Your task to perform on an android device: turn off improve location accuracy Image 0: 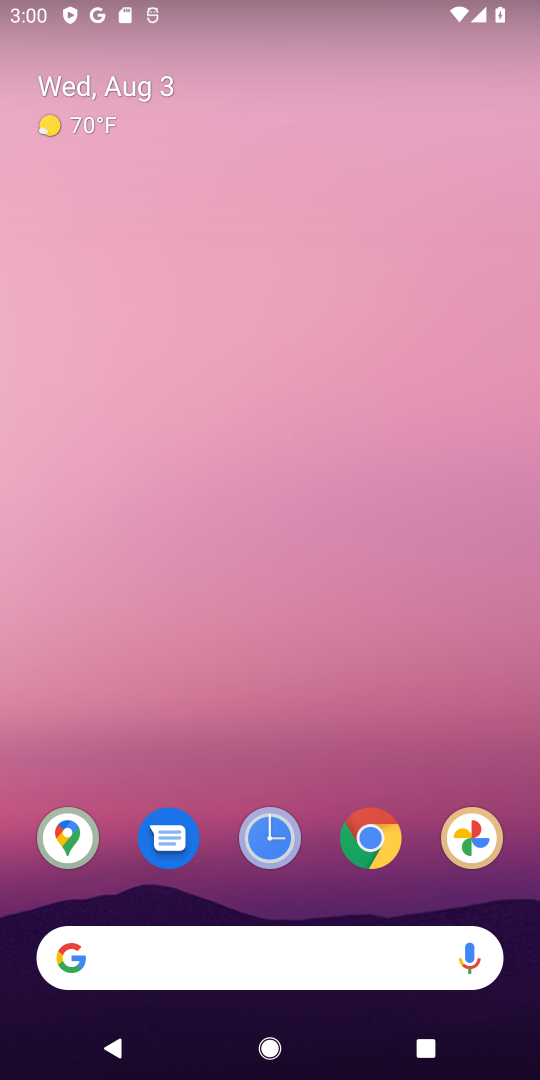
Step 0: drag from (363, 698) to (316, 118)
Your task to perform on an android device: turn off improve location accuracy Image 1: 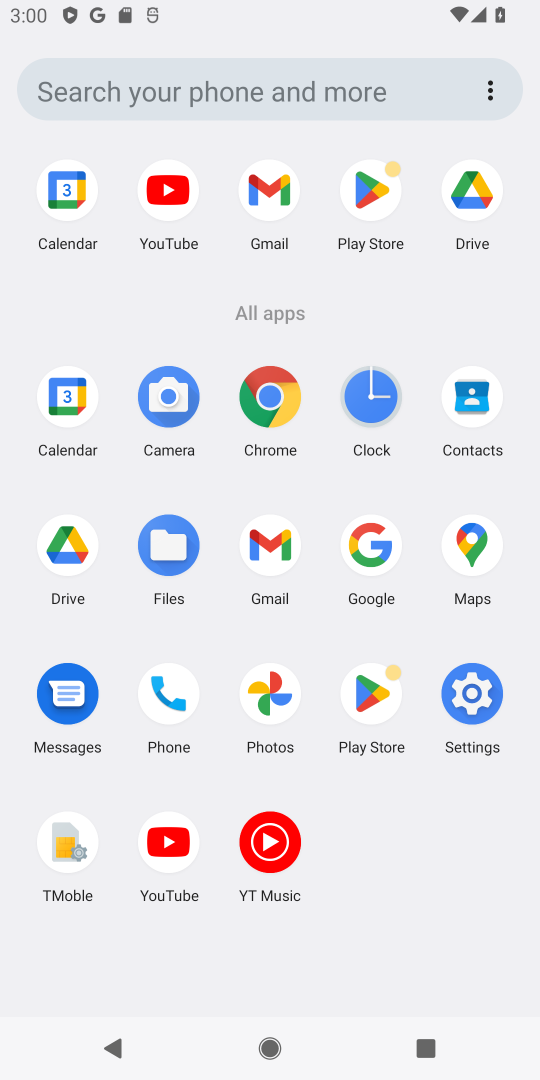
Step 1: click (474, 683)
Your task to perform on an android device: turn off improve location accuracy Image 2: 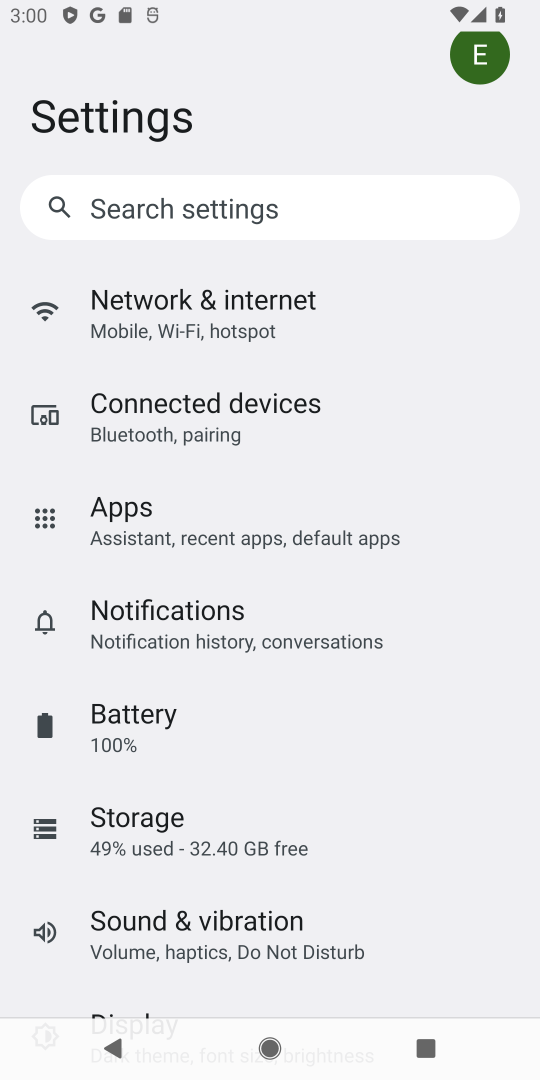
Step 2: drag from (263, 868) to (239, 592)
Your task to perform on an android device: turn off improve location accuracy Image 3: 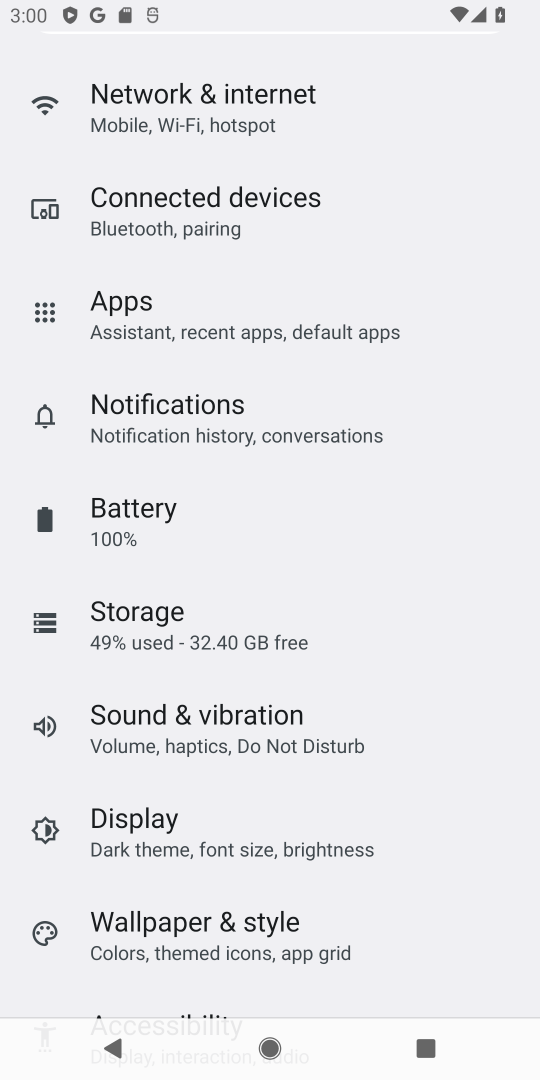
Step 3: drag from (233, 893) to (362, 271)
Your task to perform on an android device: turn off improve location accuracy Image 4: 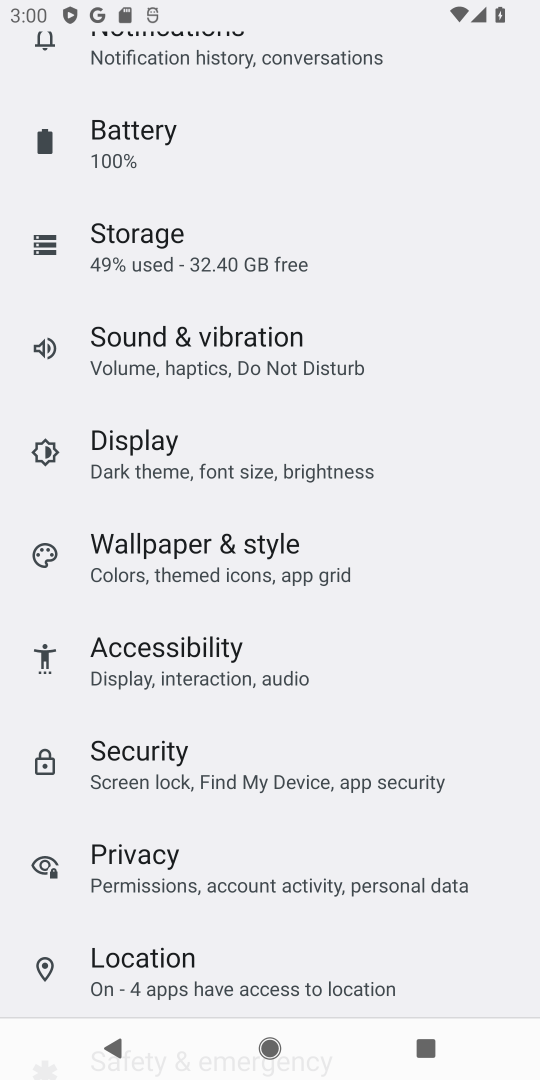
Step 4: click (216, 953)
Your task to perform on an android device: turn off improve location accuracy Image 5: 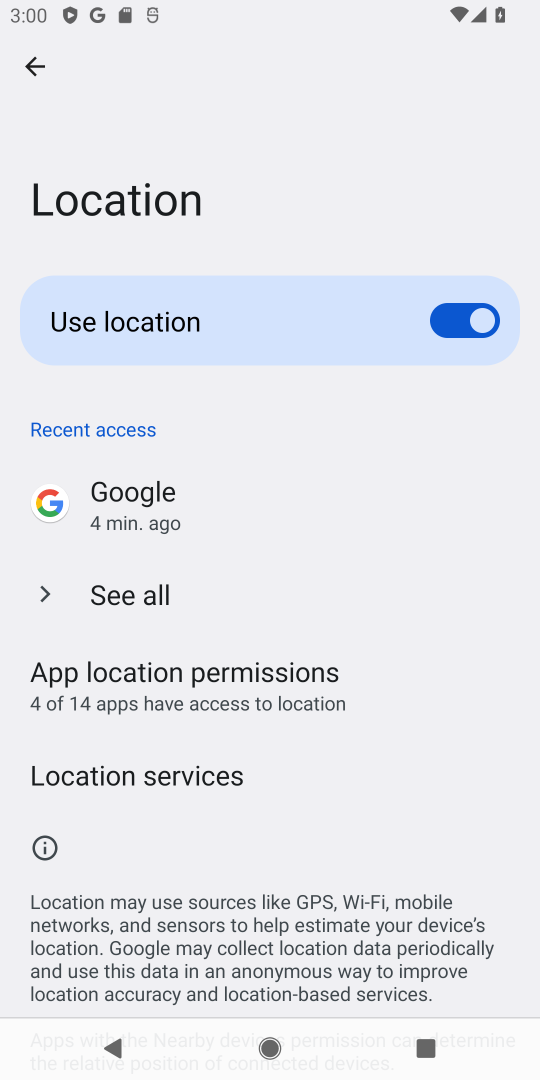
Step 5: click (172, 781)
Your task to perform on an android device: turn off improve location accuracy Image 6: 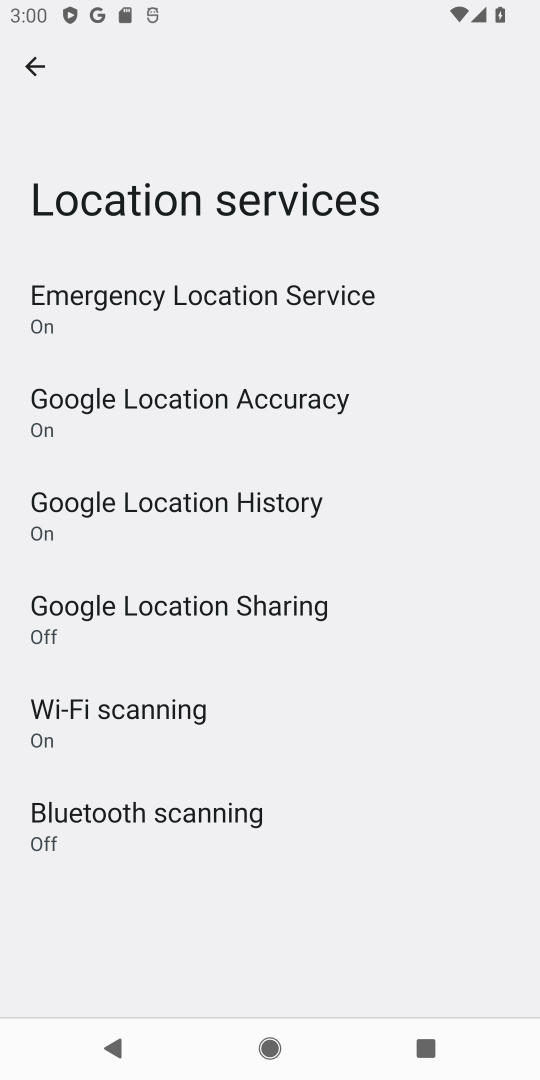
Step 6: click (196, 428)
Your task to perform on an android device: turn off improve location accuracy Image 7: 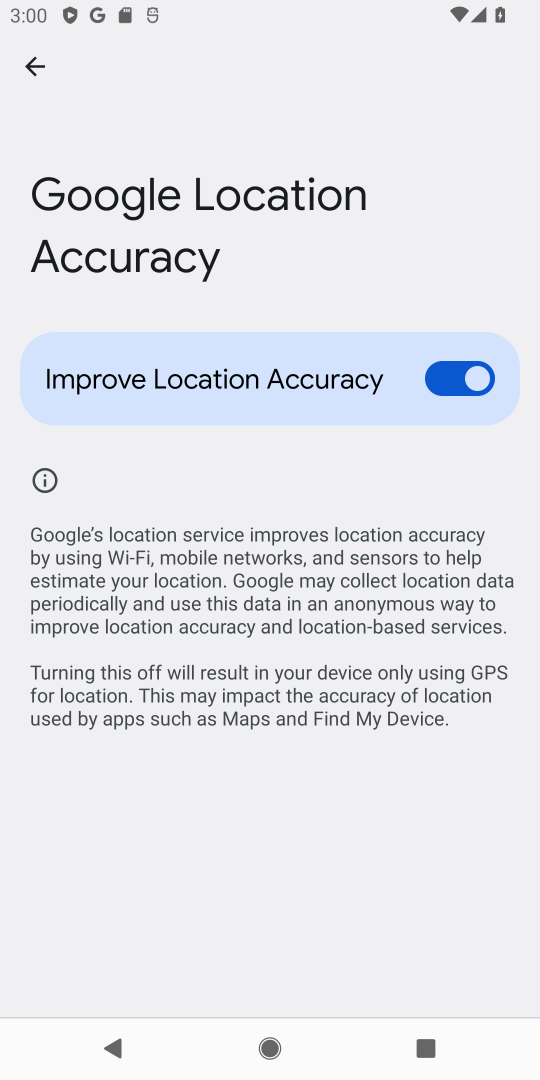
Step 7: click (465, 353)
Your task to perform on an android device: turn off improve location accuracy Image 8: 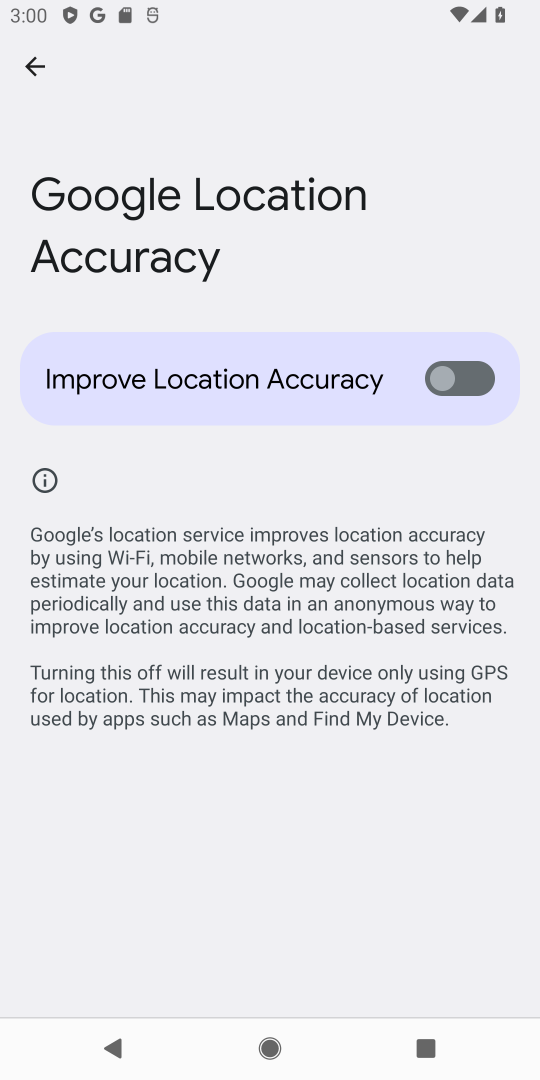
Step 8: task complete